Your task to perform on an android device: Go to display settings Image 0: 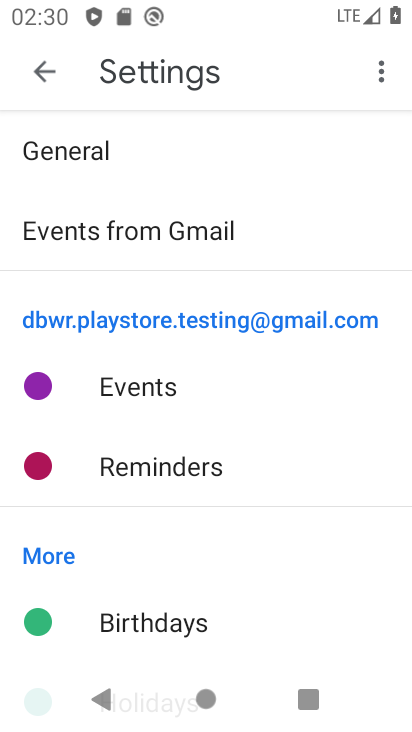
Step 0: press home button
Your task to perform on an android device: Go to display settings Image 1: 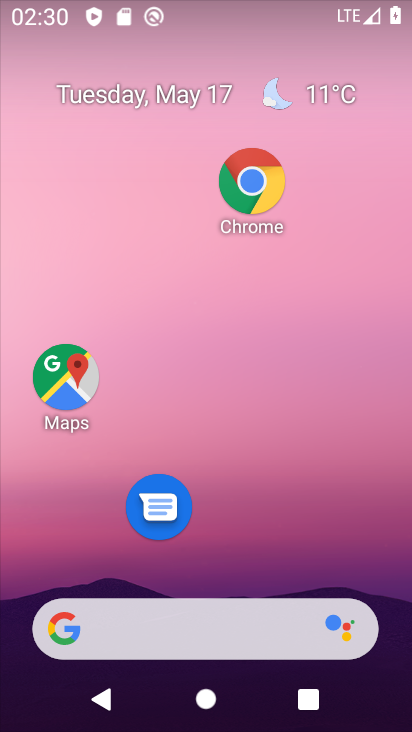
Step 1: drag from (299, 572) to (253, 257)
Your task to perform on an android device: Go to display settings Image 2: 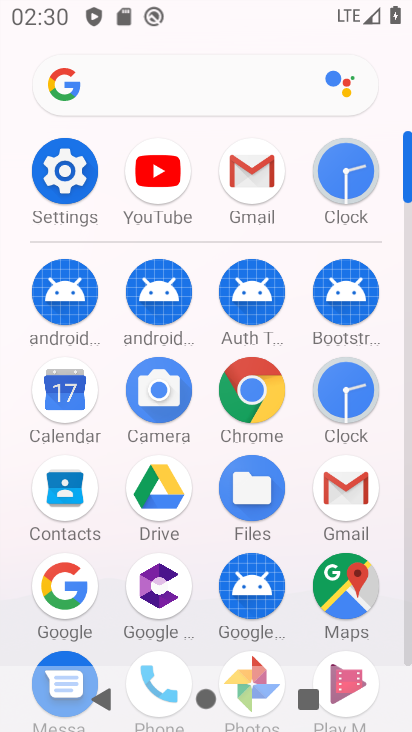
Step 2: click (43, 179)
Your task to perform on an android device: Go to display settings Image 3: 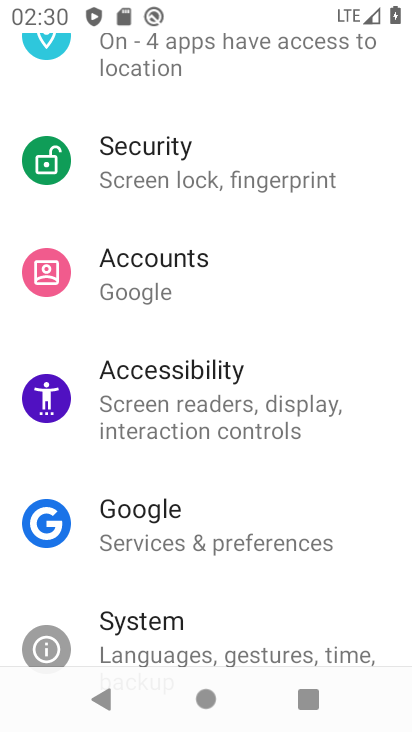
Step 3: drag from (244, 222) to (256, 615)
Your task to perform on an android device: Go to display settings Image 4: 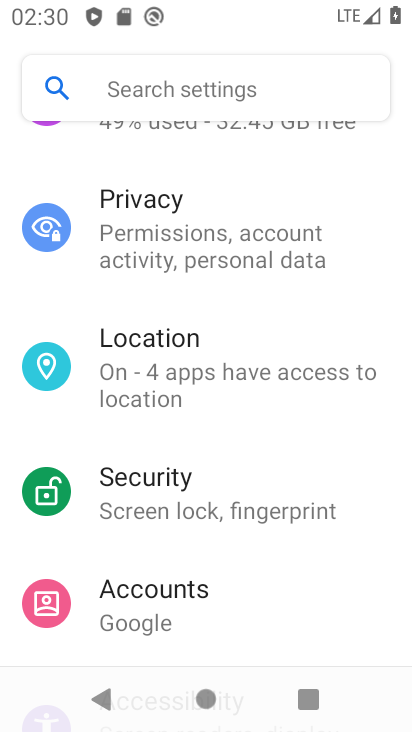
Step 4: drag from (197, 305) to (237, 576)
Your task to perform on an android device: Go to display settings Image 5: 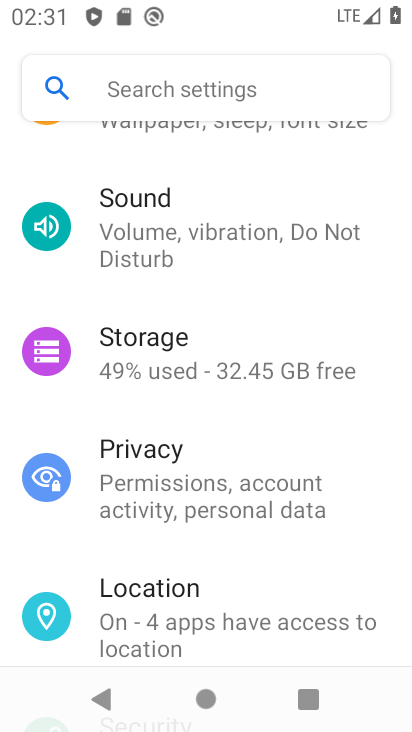
Step 5: drag from (171, 156) to (265, 503)
Your task to perform on an android device: Go to display settings Image 6: 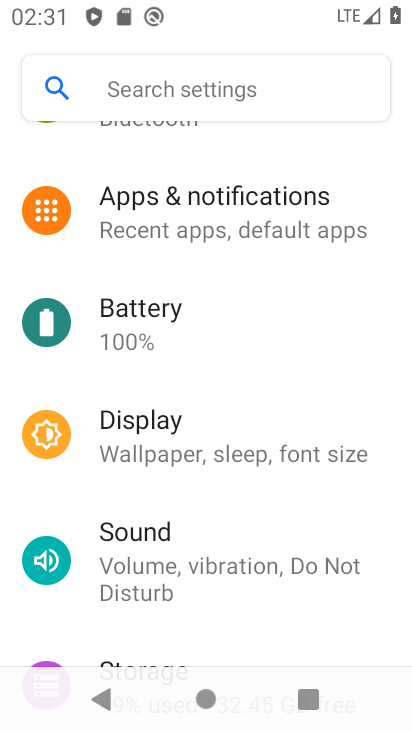
Step 6: click (216, 457)
Your task to perform on an android device: Go to display settings Image 7: 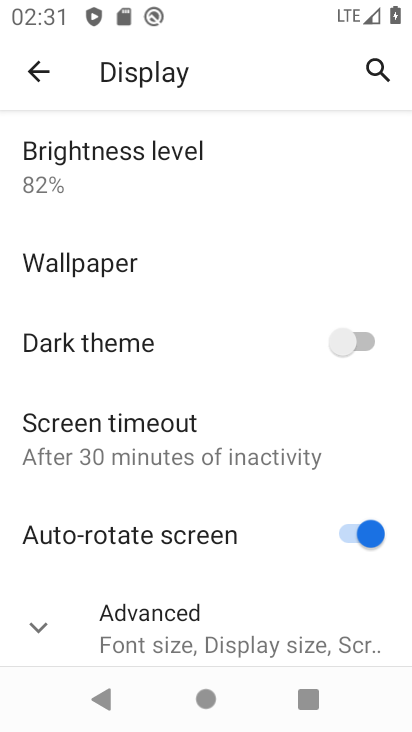
Step 7: task complete